Your task to perform on an android device: turn vacation reply on in the gmail app Image 0: 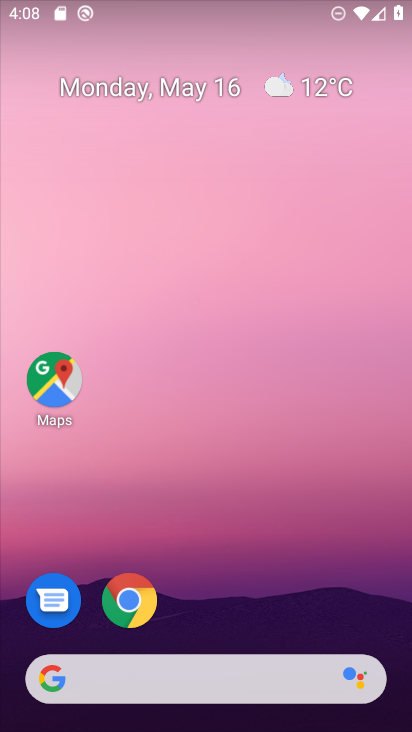
Step 0: drag from (249, 369) to (261, 40)
Your task to perform on an android device: turn vacation reply on in the gmail app Image 1: 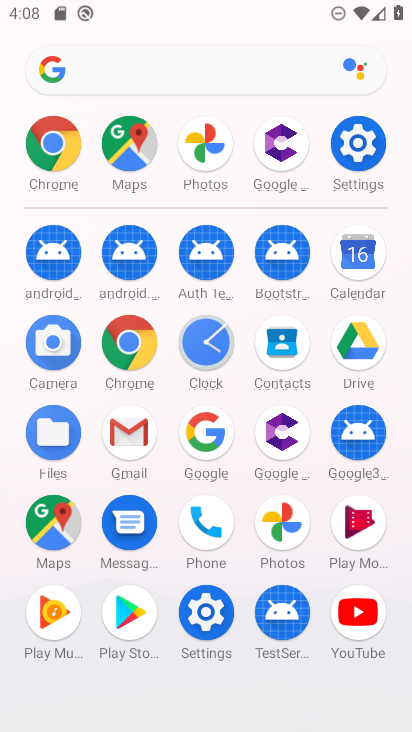
Step 1: click (130, 424)
Your task to perform on an android device: turn vacation reply on in the gmail app Image 2: 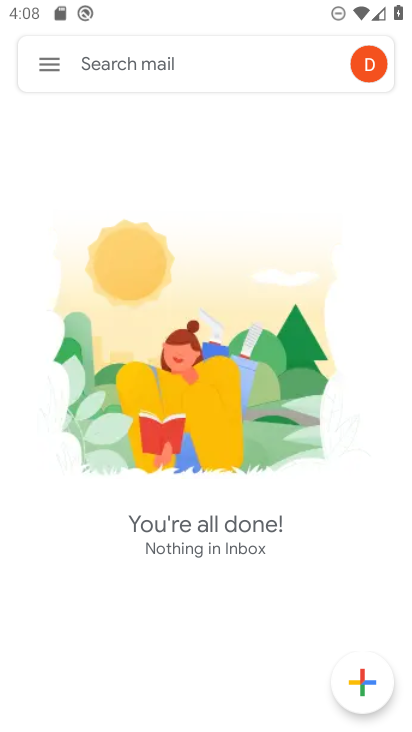
Step 2: click (54, 60)
Your task to perform on an android device: turn vacation reply on in the gmail app Image 3: 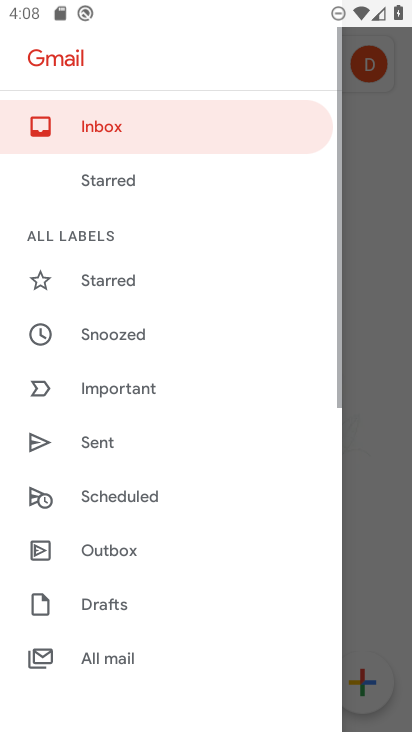
Step 3: drag from (153, 595) to (172, 13)
Your task to perform on an android device: turn vacation reply on in the gmail app Image 4: 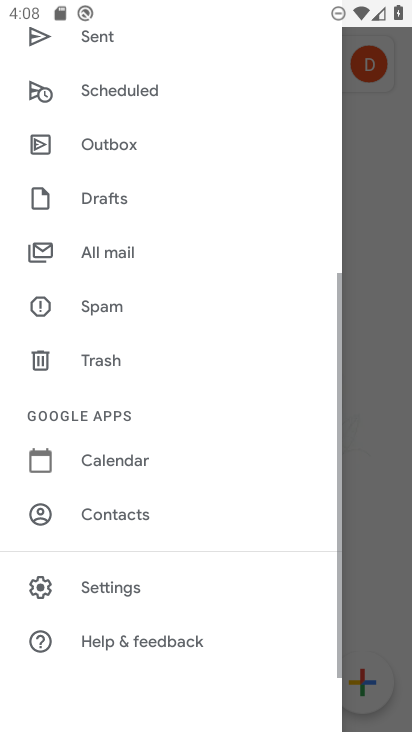
Step 4: click (119, 583)
Your task to perform on an android device: turn vacation reply on in the gmail app Image 5: 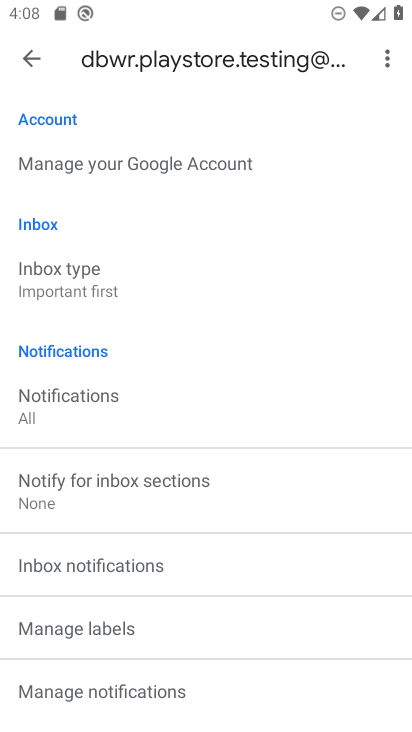
Step 5: drag from (202, 556) to (148, 72)
Your task to perform on an android device: turn vacation reply on in the gmail app Image 6: 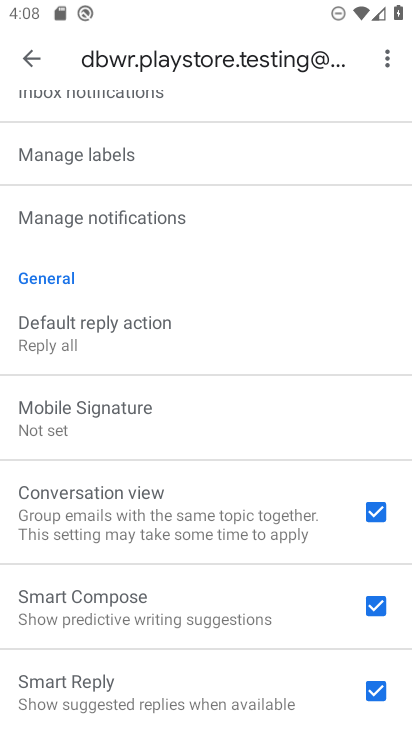
Step 6: drag from (227, 661) to (292, 235)
Your task to perform on an android device: turn vacation reply on in the gmail app Image 7: 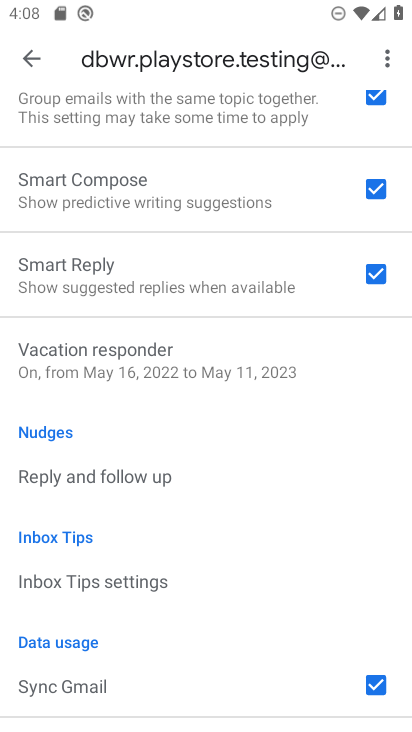
Step 7: click (180, 358)
Your task to perform on an android device: turn vacation reply on in the gmail app Image 8: 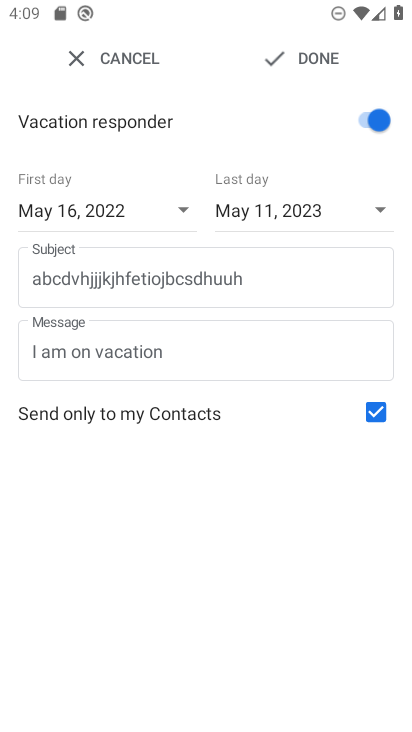
Step 8: task complete